Your task to perform on an android device: set the stopwatch Image 0: 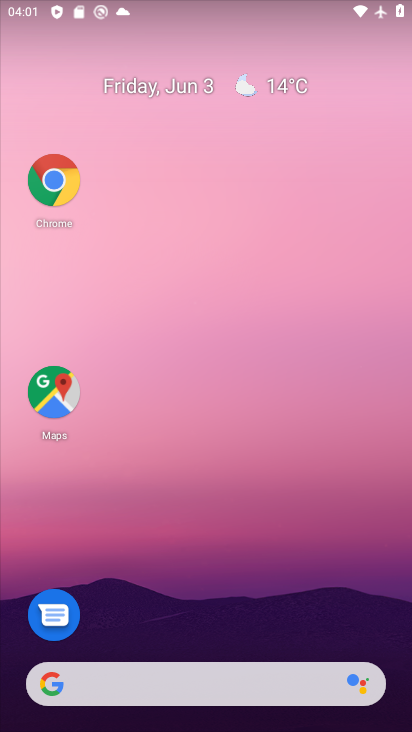
Step 0: drag from (250, 724) to (344, 24)
Your task to perform on an android device: set the stopwatch Image 1: 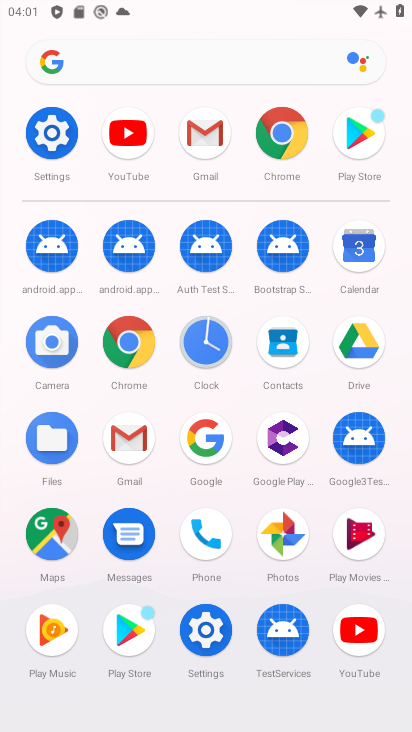
Step 1: click (205, 361)
Your task to perform on an android device: set the stopwatch Image 2: 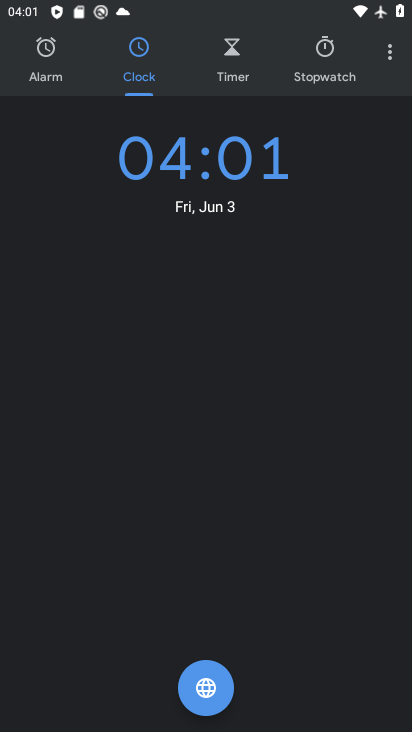
Step 2: click (336, 72)
Your task to perform on an android device: set the stopwatch Image 3: 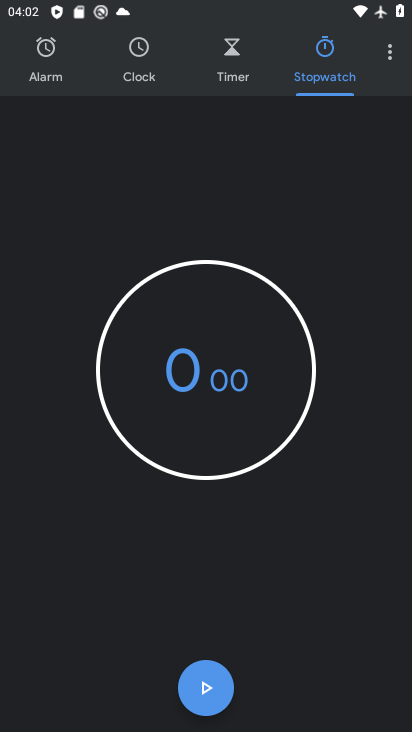
Step 3: click (211, 683)
Your task to perform on an android device: set the stopwatch Image 4: 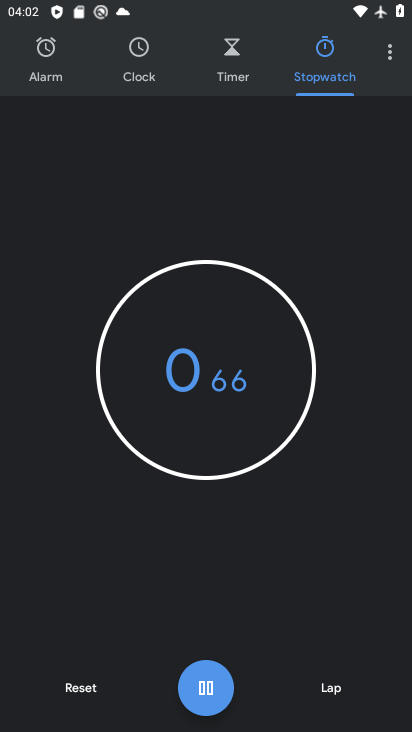
Step 4: click (211, 683)
Your task to perform on an android device: set the stopwatch Image 5: 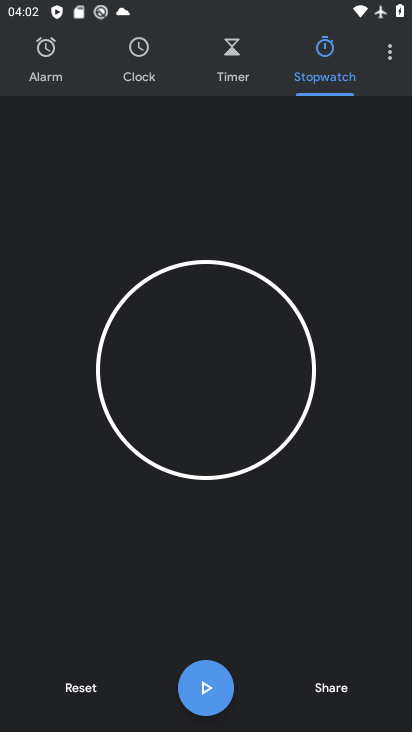
Step 5: task complete